Your task to perform on an android device: toggle airplane mode Image 0: 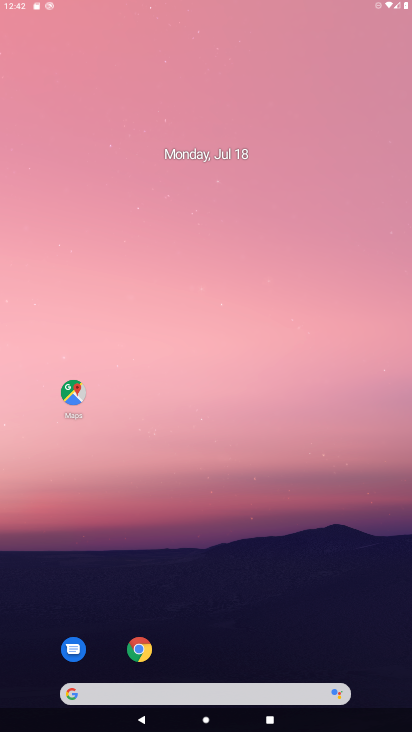
Step 0: drag from (211, 342) to (352, 115)
Your task to perform on an android device: toggle airplane mode Image 1: 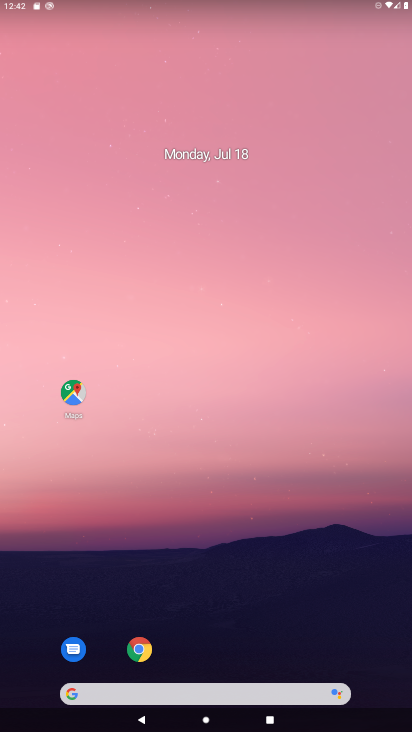
Step 1: drag from (54, 559) to (129, 222)
Your task to perform on an android device: toggle airplane mode Image 2: 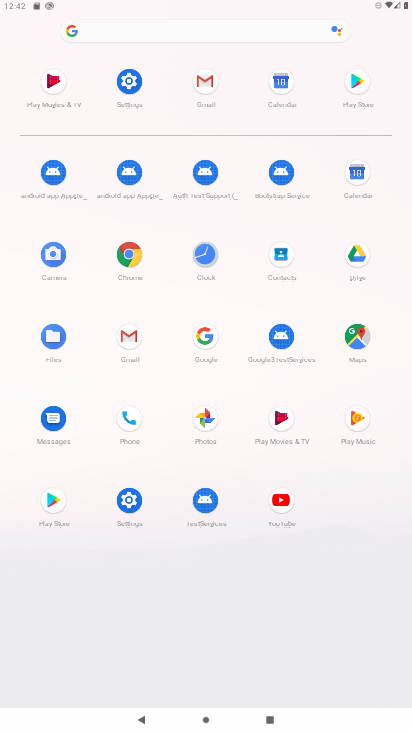
Step 2: click (157, 486)
Your task to perform on an android device: toggle airplane mode Image 3: 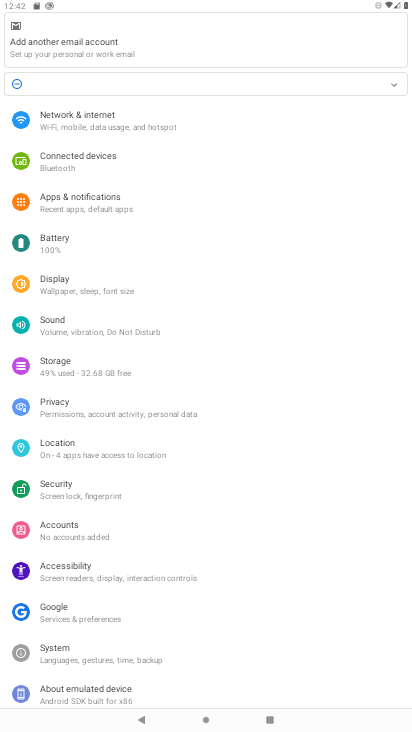
Step 3: click (119, 131)
Your task to perform on an android device: toggle airplane mode Image 4: 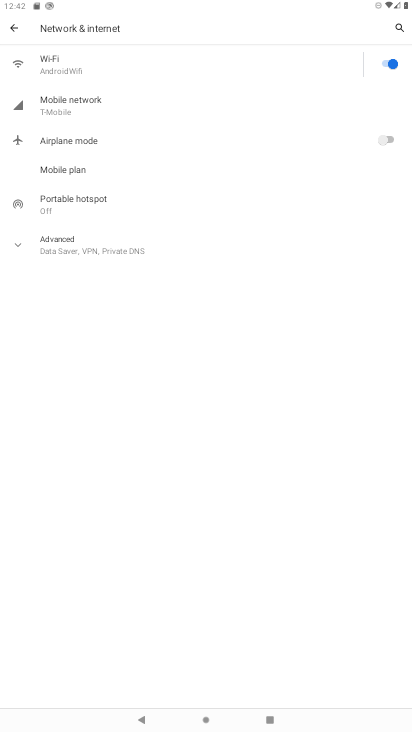
Step 4: click (378, 135)
Your task to perform on an android device: toggle airplane mode Image 5: 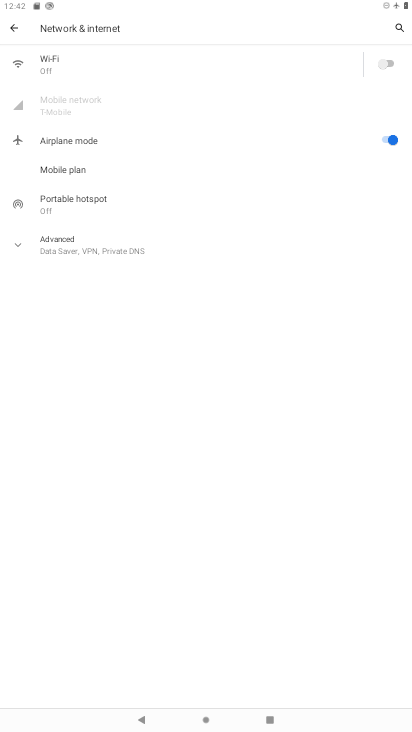
Step 5: task complete